Your task to perform on an android device: Go to ESPN.com Image 0: 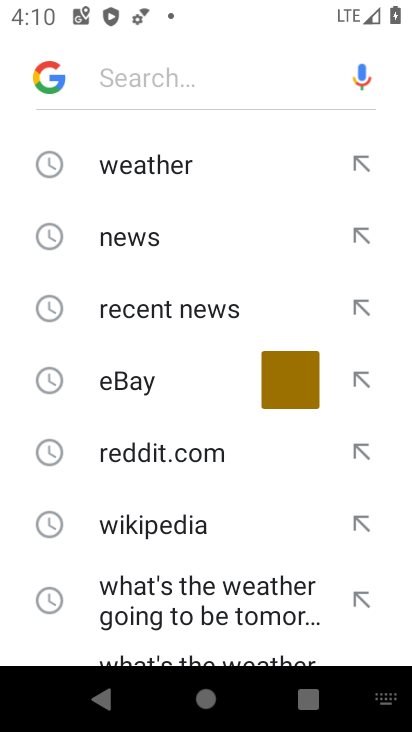
Step 0: press home button
Your task to perform on an android device: Go to ESPN.com Image 1: 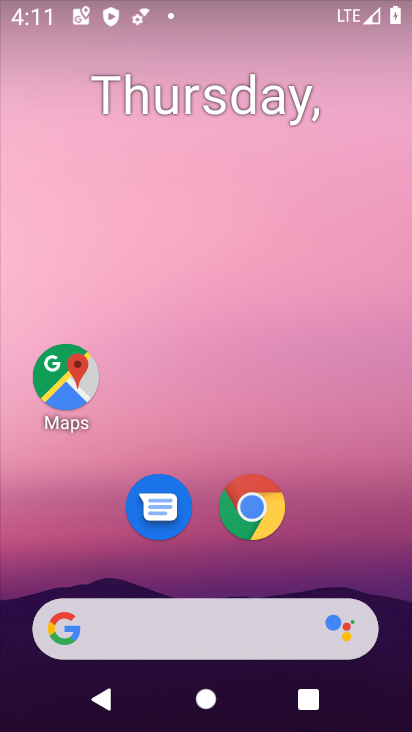
Step 1: click (267, 512)
Your task to perform on an android device: Go to ESPN.com Image 2: 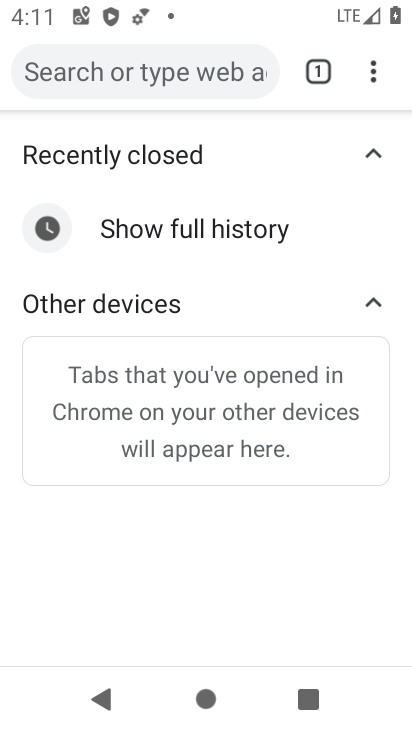
Step 2: press back button
Your task to perform on an android device: Go to ESPN.com Image 3: 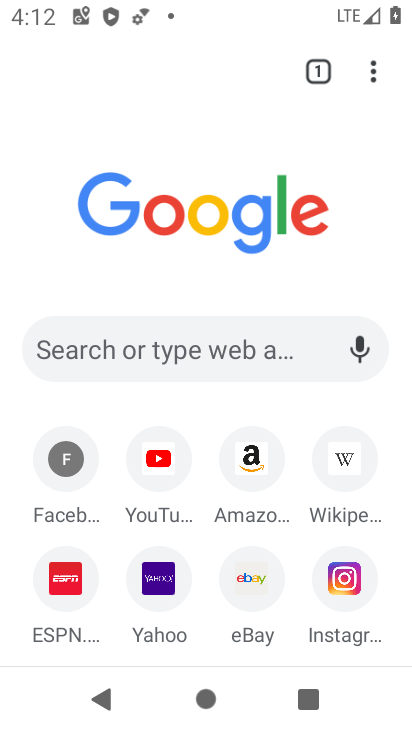
Step 3: click (61, 581)
Your task to perform on an android device: Go to ESPN.com Image 4: 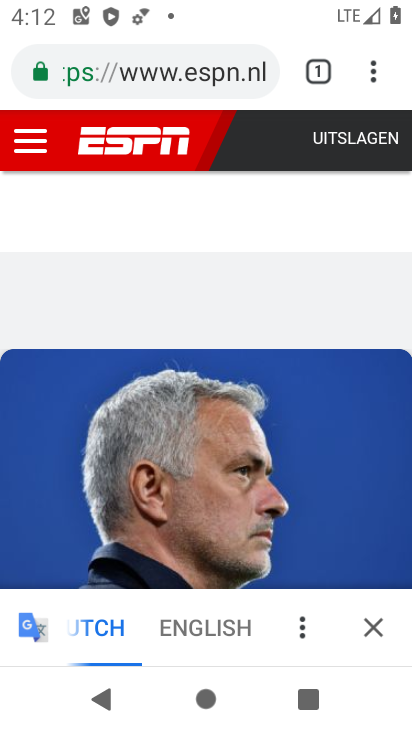
Step 4: task complete